Your task to perform on an android device: turn notification dots off Image 0: 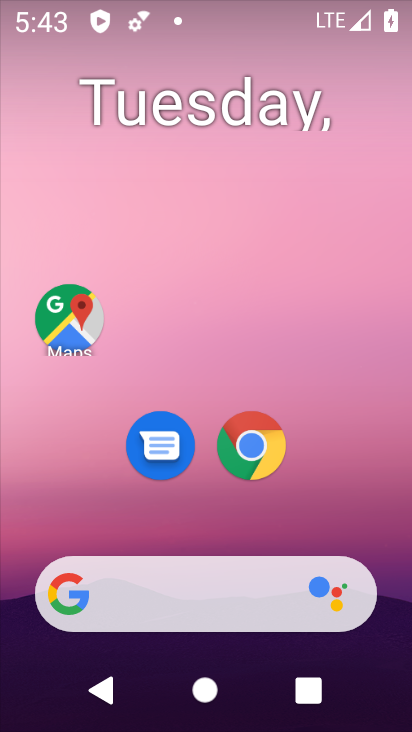
Step 0: drag from (298, 530) to (317, 136)
Your task to perform on an android device: turn notification dots off Image 1: 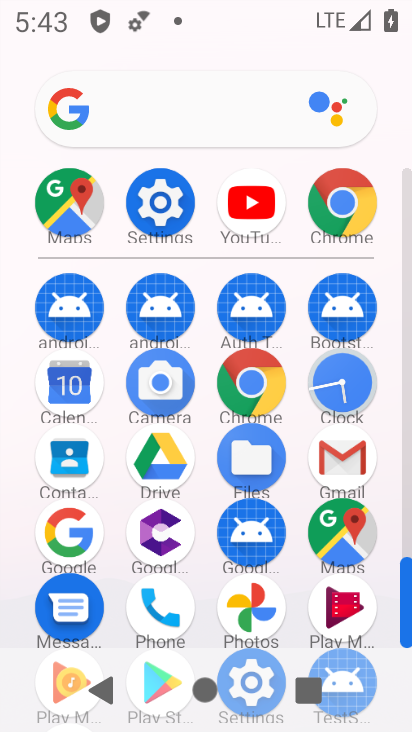
Step 1: click (156, 196)
Your task to perform on an android device: turn notification dots off Image 2: 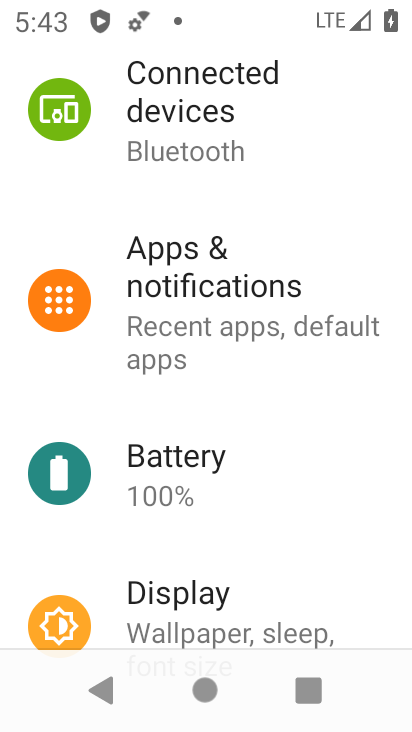
Step 2: click (218, 293)
Your task to perform on an android device: turn notification dots off Image 3: 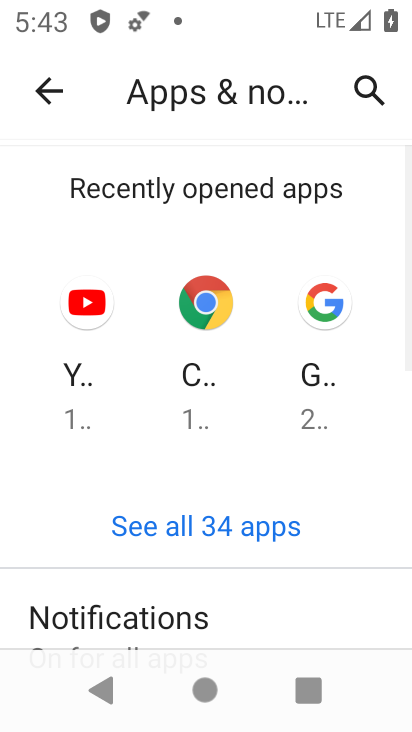
Step 3: drag from (313, 606) to (347, 247)
Your task to perform on an android device: turn notification dots off Image 4: 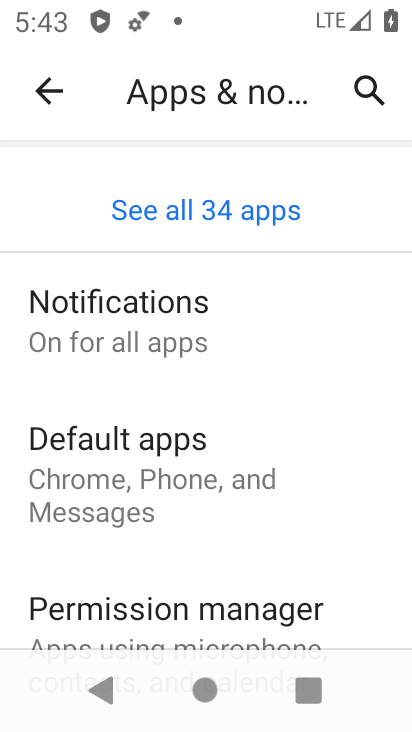
Step 4: click (106, 326)
Your task to perform on an android device: turn notification dots off Image 5: 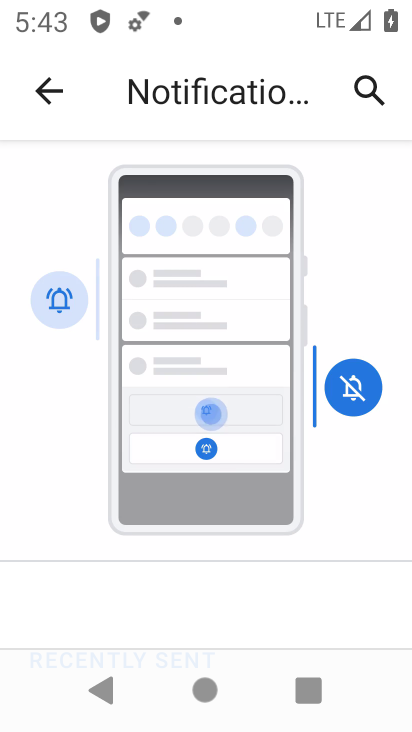
Step 5: drag from (281, 593) to (340, 233)
Your task to perform on an android device: turn notification dots off Image 6: 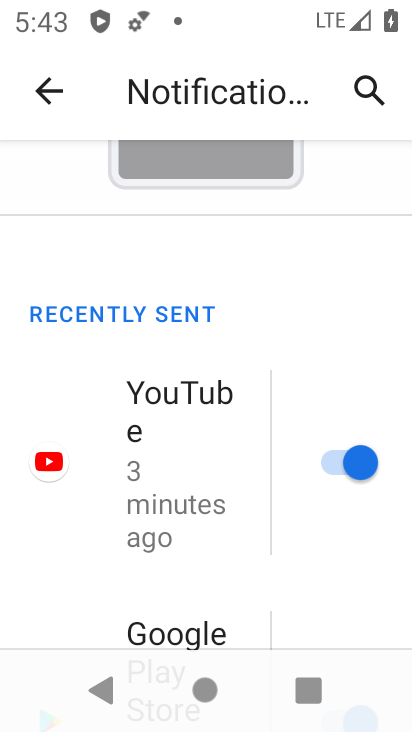
Step 6: drag from (309, 588) to (324, 301)
Your task to perform on an android device: turn notification dots off Image 7: 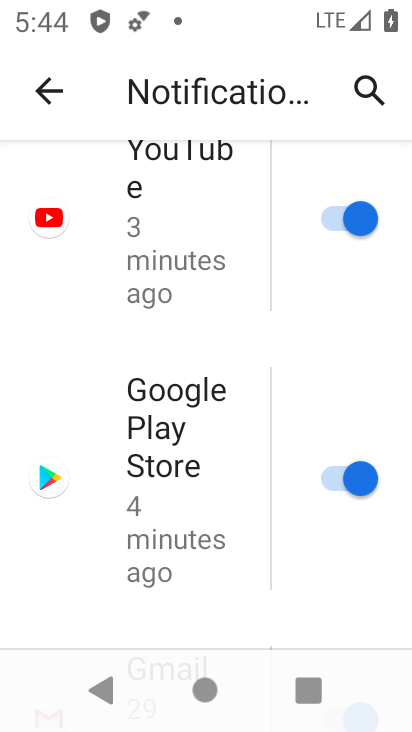
Step 7: drag from (311, 605) to (321, 290)
Your task to perform on an android device: turn notification dots off Image 8: 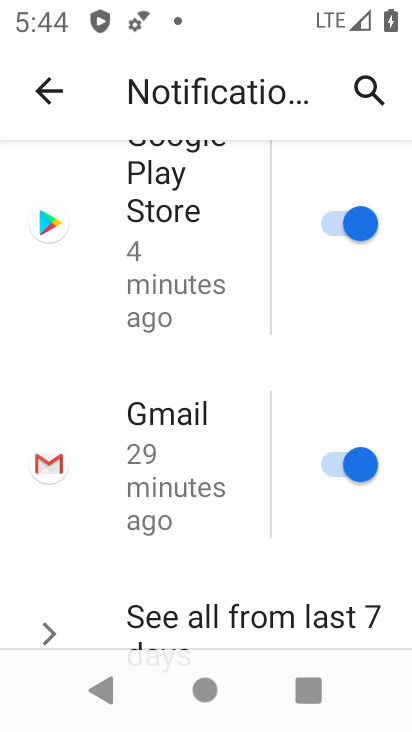
Step 8: drag from (279, 551) to (301, 318)
Your task to perform on an android device: turn notification dots off Image 9: 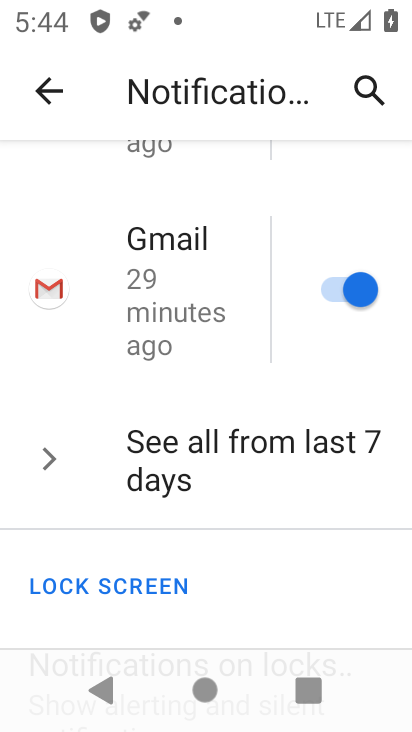
Step 9: drag from (263, 593) to (273, 328)
Your task to perform on an android device: turn notification dots off Image 10: 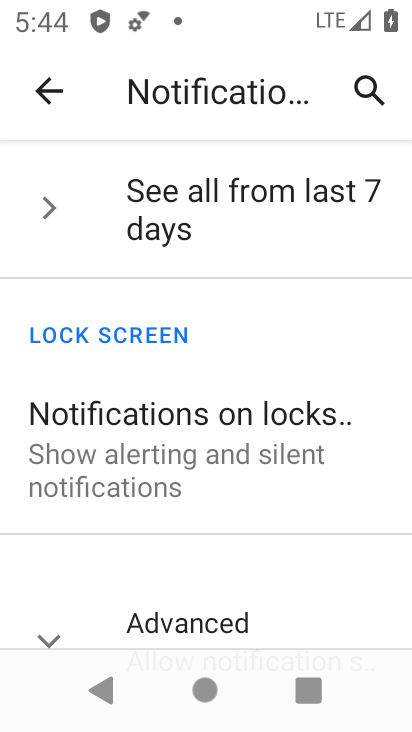
Step 10: drag from (299, 603) to (309, 364)
Your task to perform on an android device: turn notification dots off Image 11: 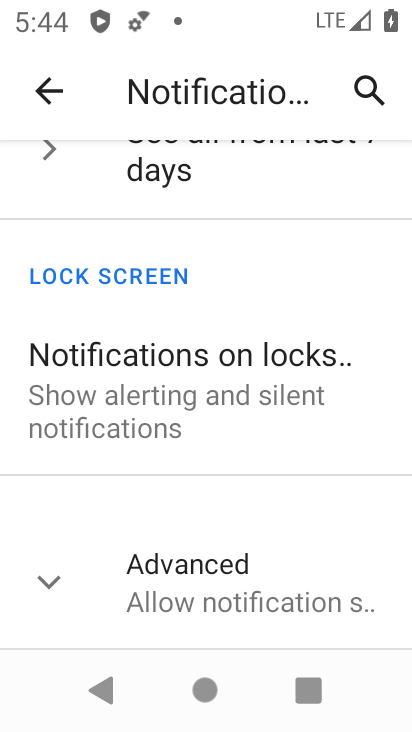
Step 11: click (228, 592)
Your task to perform on an android device: turn notification dots off Image 12: 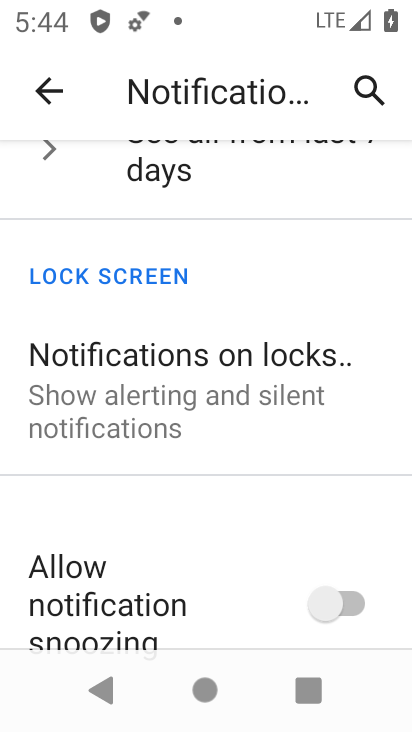
Step 12: drag from (239, 590) to (257, 432)
Your task to perform on an android device: turn notification dots off Image 13: 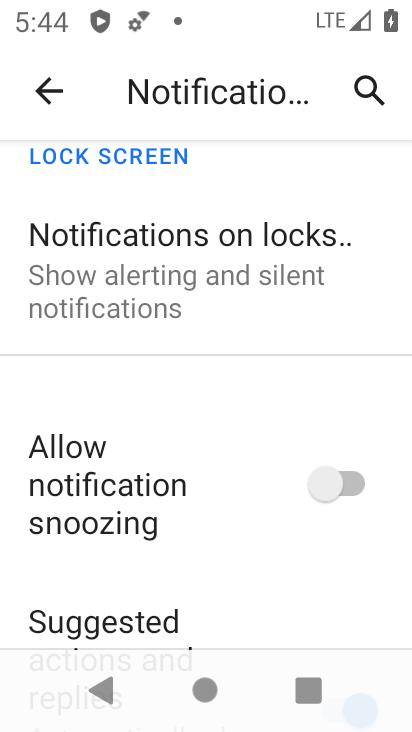
Step 13: drag from (271, 604) to (271, 429)
Your task to perform on an android device: turn notification dots off Image 14: 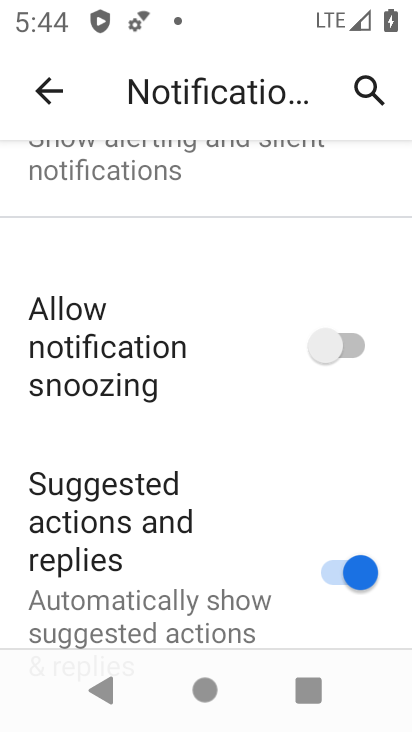
Step 14: drag from (267, 584) to (261, 363)
Your task to perform on an android device: turn notification dots off Image 15: 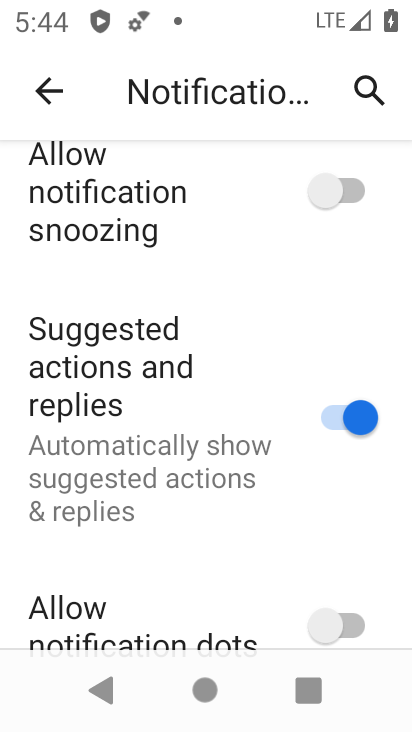
Step 15: drag from (255, 572) to (263, 417)
Your task to perform on an android device: turn notification dots off Image 16: 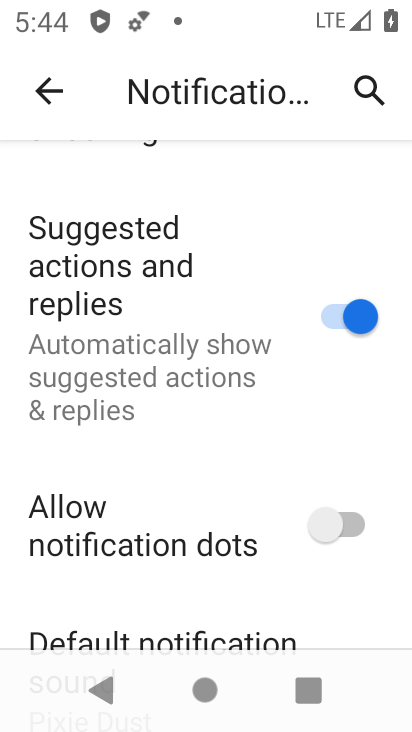
Step 16: click (334, 523)
Your task to perform on an android device: turn notification dots off Image 17: 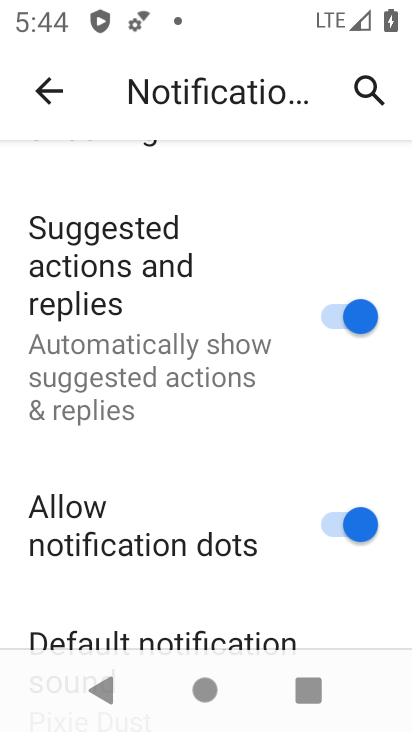
Step 17: click (331, 522)
Your task to perform on an android device: turn notification dots off Image 18: 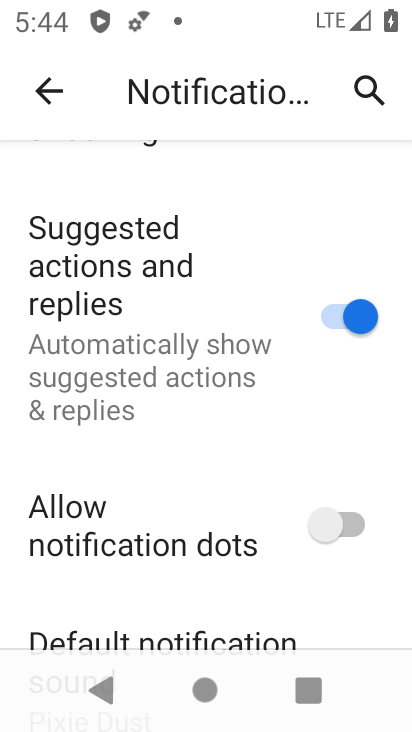
Step 18: task complete